Your task to perform on an android device: visit the assistant section in the google photos Image 0: 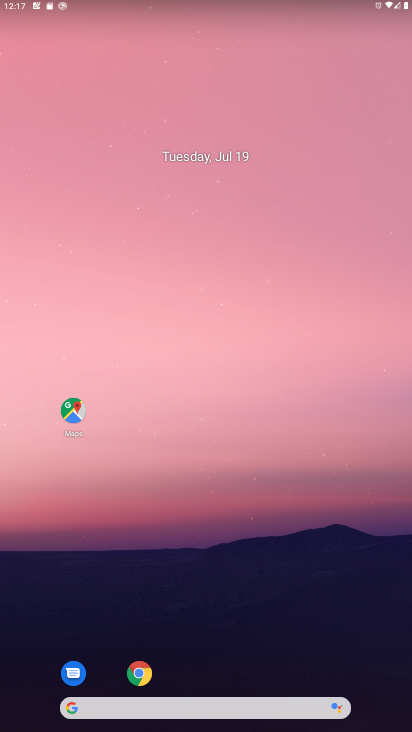
Step 0: drag from (188, 670) to (190, 218)
Your task to perform on an android device: visit the assistant section in the google photos Image 1: 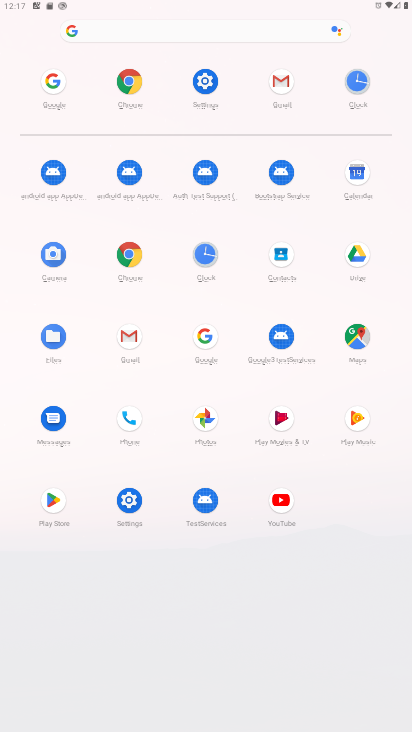
Step 1: click (207, 419)
Your task to perform on an android device: visit the assistant section in the google photos Image 2: 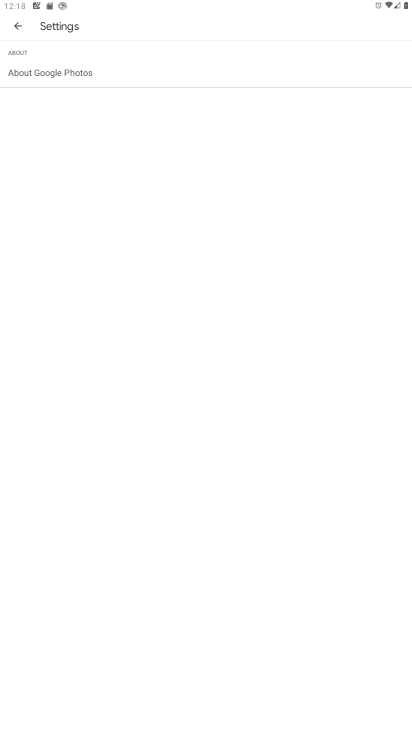
Step 2: press home button
Your task to perform on an android device: visit the assistant section in the google photos Image 3: 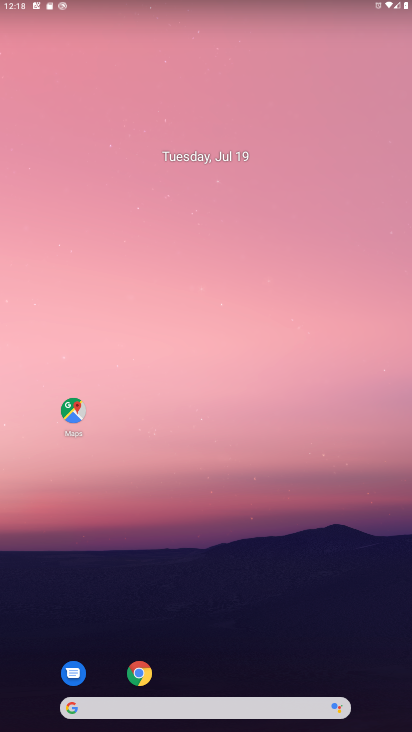
Step 3: drag from (207, 656) to (221, 156)
Your task to perform on an android device: visit the assistant section in the google photos Image 4: 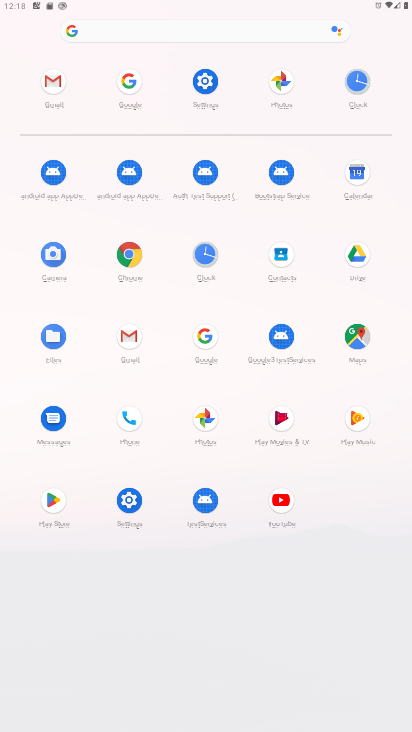
Step 4: click (278, 84)
Your task to perform on an android device: visit the assistant section in the google photos Image 5: 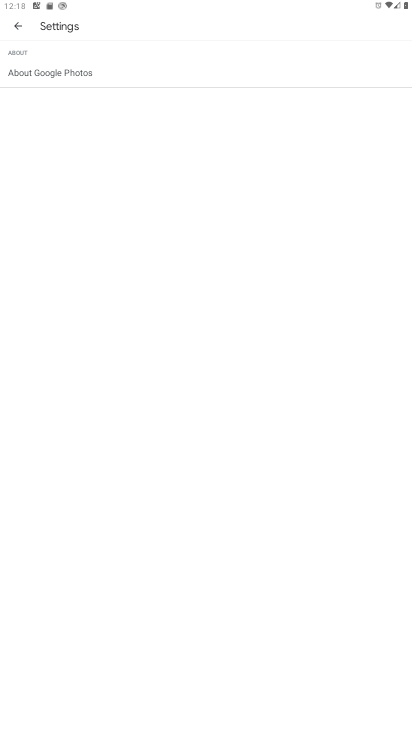
Step 5: click (15, 26)
Your task to perform on an android device: visit the assistant section in the google photos Image 6: 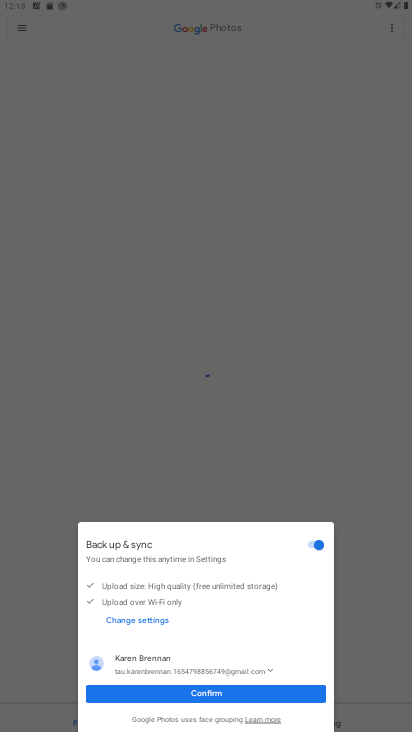
Step 6: click (145, 698)
Your task to perform on an android device: visit the assistant section in the google photos Image 7: 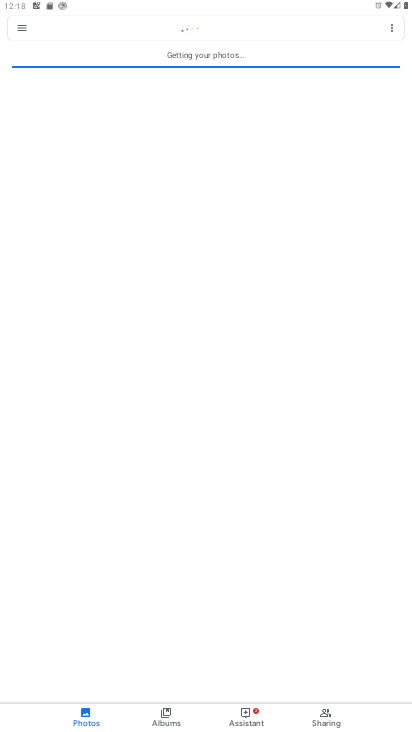
Step 7: click (245, 719)
Your task to perform on an android device: visit the assistant section in the google photos Image 8: 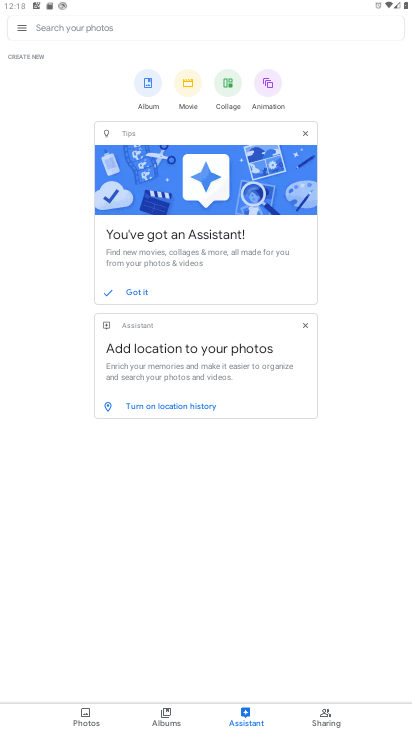
Step 8: task complete